Your task to perform on an android device: Open my contact list Image 0: 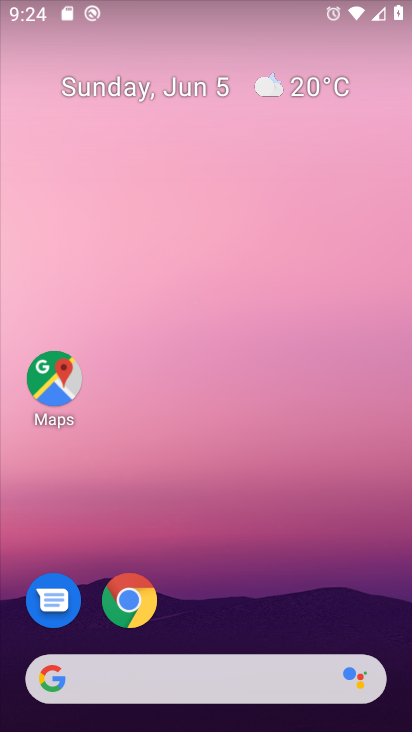
Step 0: drag from (256, 602) to (273, 35)
Your task to perform on an android device: Open my contact list Image 1: 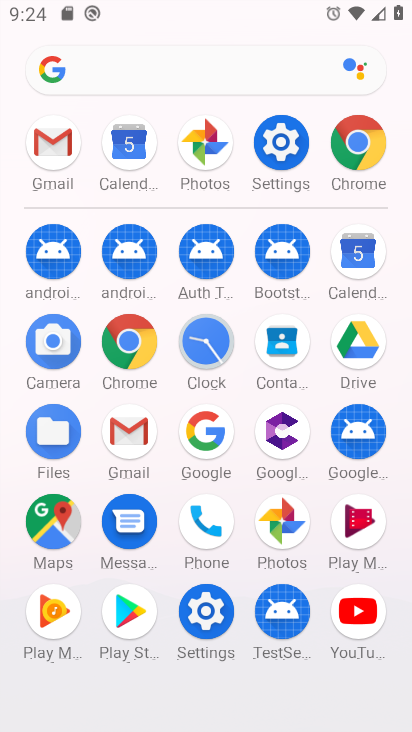
Step 1: click (275, 354)
Your task to perform on an android device: Open my contact list Image 2: 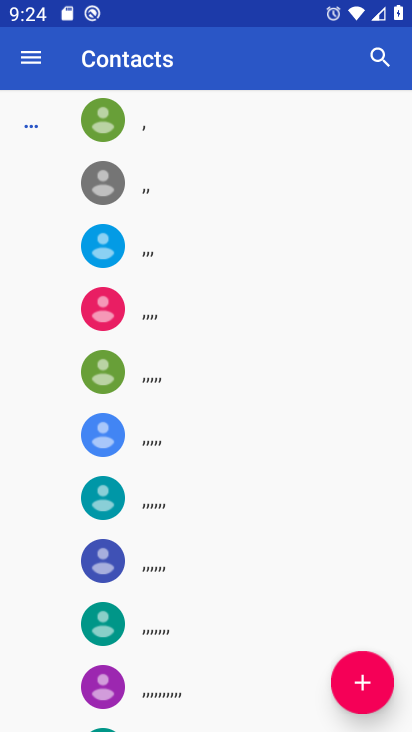
Step 2: task complete